Your task to perform on an android device: change the clock display to digital Image 0: 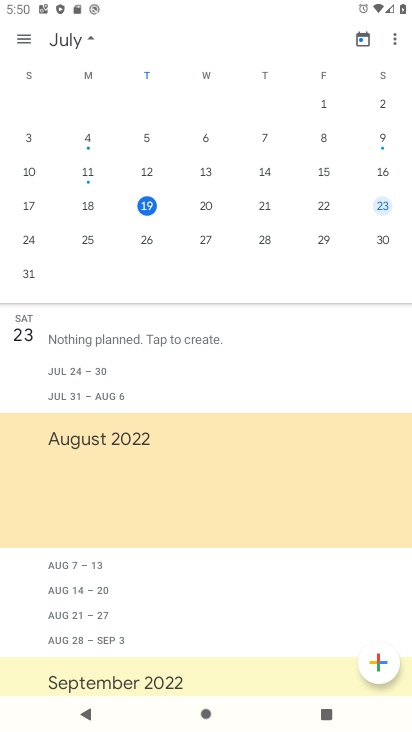
Step 0: press home button
Your task to perform on an android device: change the clock display to digital Image 1: 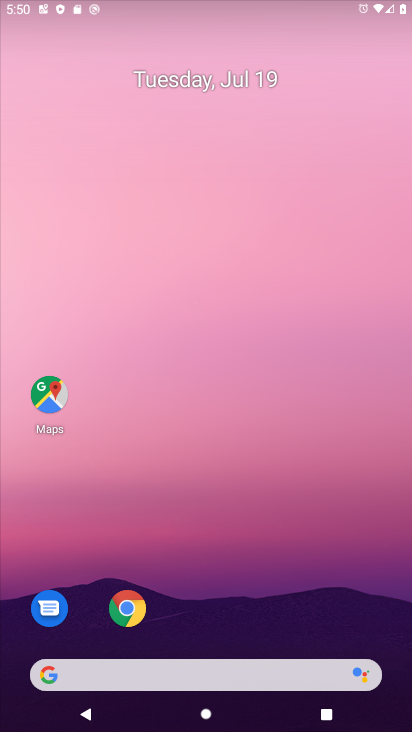
Step 1: drag from (208, 659) to (234, 13)
Your task to perform on an android device: change the clock display to digital Image 2: 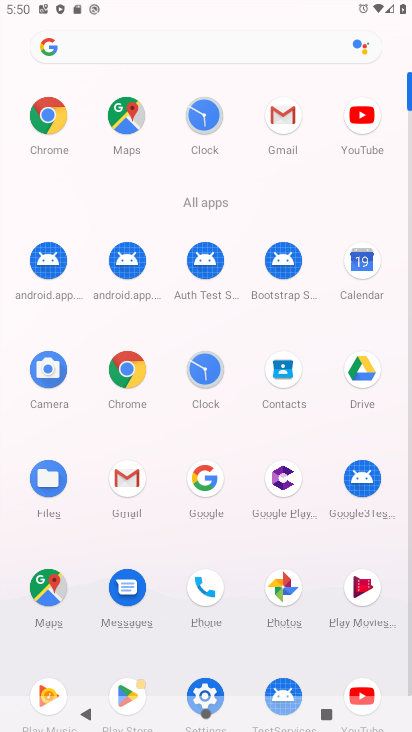
Step 2: click (204, 364)
Your task to perform on an android device: change the clock display to digital Image 3: 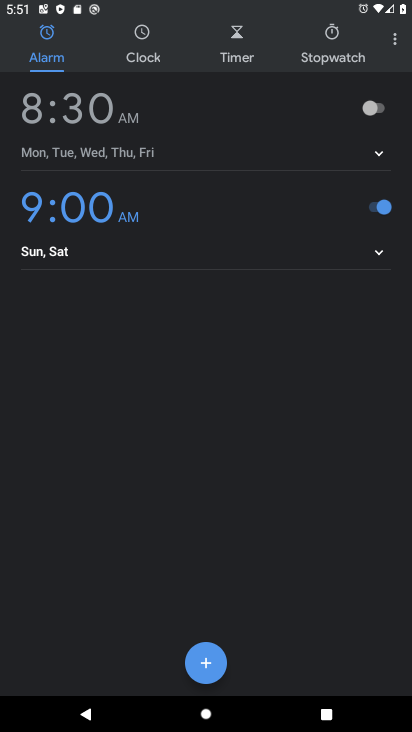
Step 3: click (392, 32)
Your task to perform on an android device: change the clock display to digital Image 4: 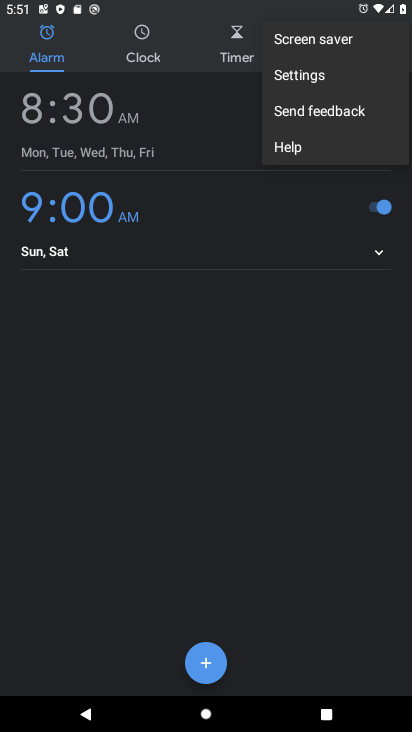
Step 4: click (339, 73)
Your task to perform on an android device: change the clock display to digital Image 5: 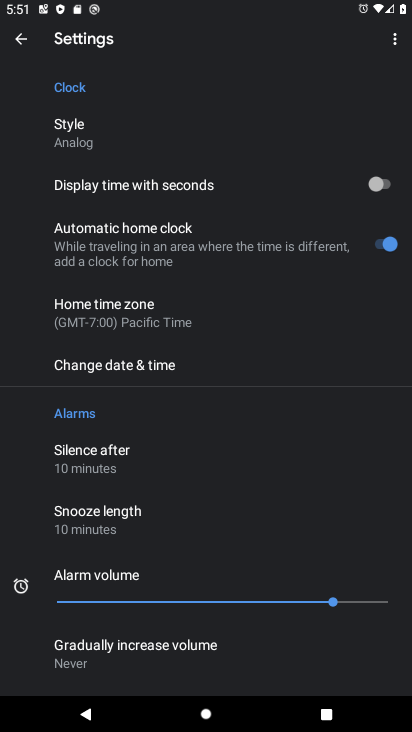
Step 5: click (121, 148)
Your task to perform on an android device: change the clock display to digital Image 6: 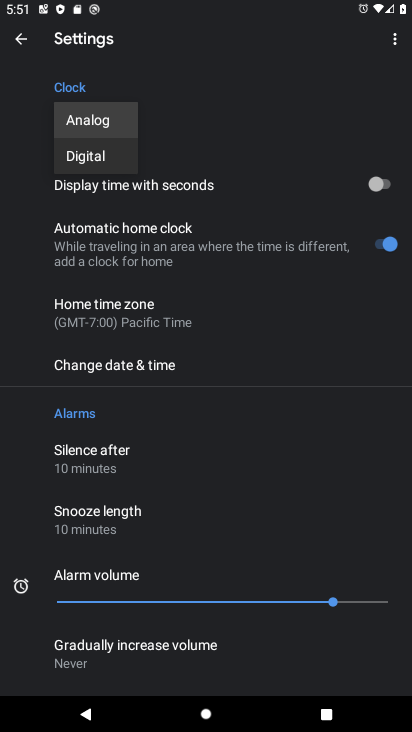
Step 6: click (94, 152)
Your task to perform on an android device: change the clock display to digital Image 7: 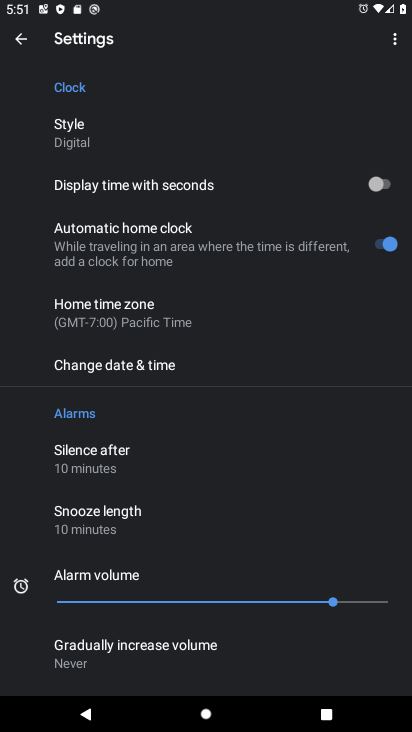
Step 7: task complete